Your task to perform on an android device: Show me productivity apps on the Play Store Image 0: 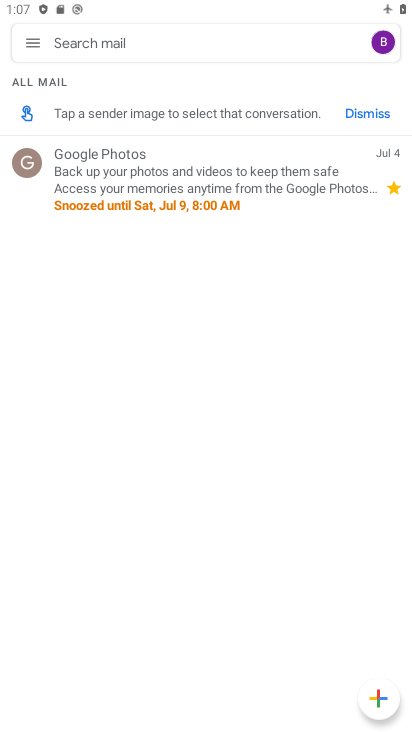
Step 0: press home button
Your task to perform on an android device: Show me productivity apps on the Play Store Image 1: 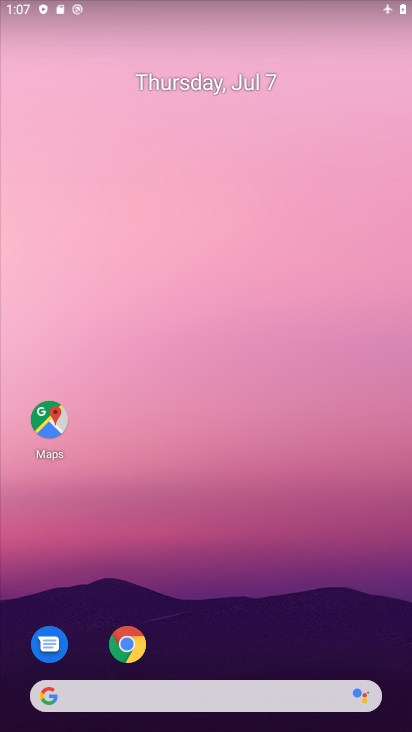
Step 1: drag from (242, 598) to (272, 119)
Your task to perform on an android device: Show me productivity apps on the Play Store Image 2: 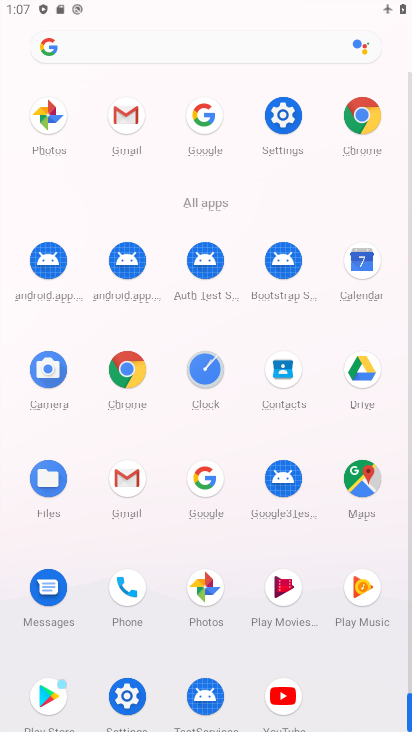
Step 2: drag from (169, 558) to (190, 312)
Your task to perform on an android device: Show me productivity apps on the Play Store Image 3: 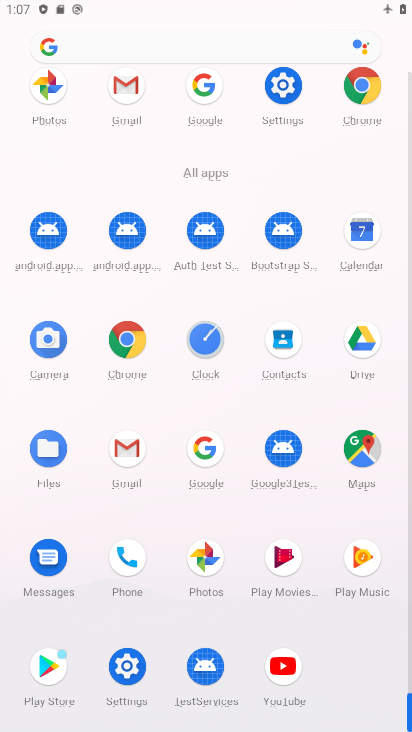
Step 3: click (53, 667)
Your task to perform on an android device: Show me productivity apps on the Play Store Image 4: 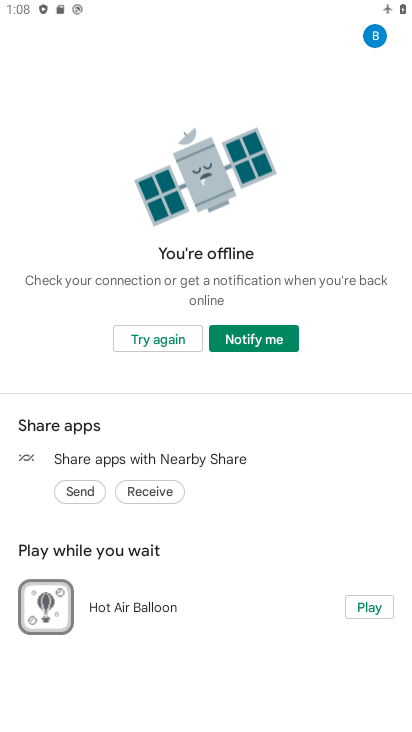
Step 4: task complete